Your task to perform on an android device: Open Chrome and go to settings Image 0: 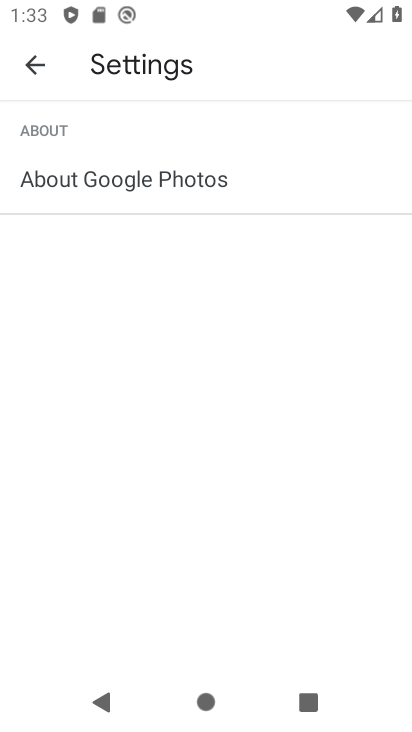
Step 0: press back button
Your task to perform on an android device: Open Chrome and go to settings Image 1: 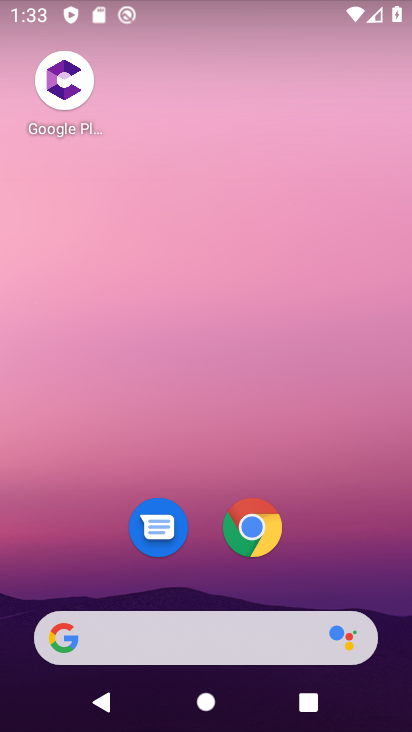
Step 1: click (263, 535)
Your task to perform on an android device: Open Chrome and go to settings Image 2: 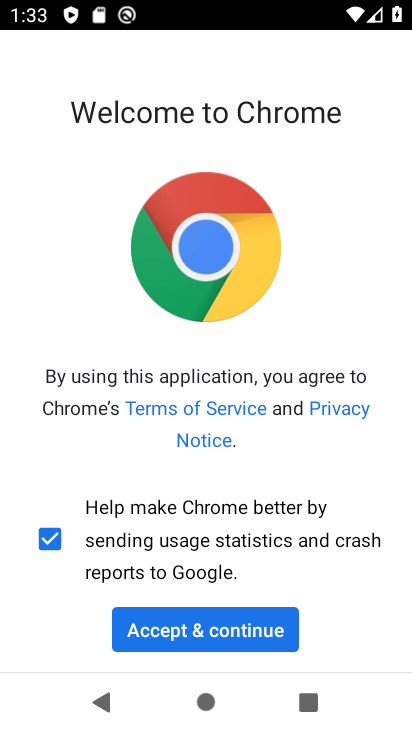
Step 2: click (285, 628)
Your task to perform on an android device: Open Chrome and go to settings Image 3: 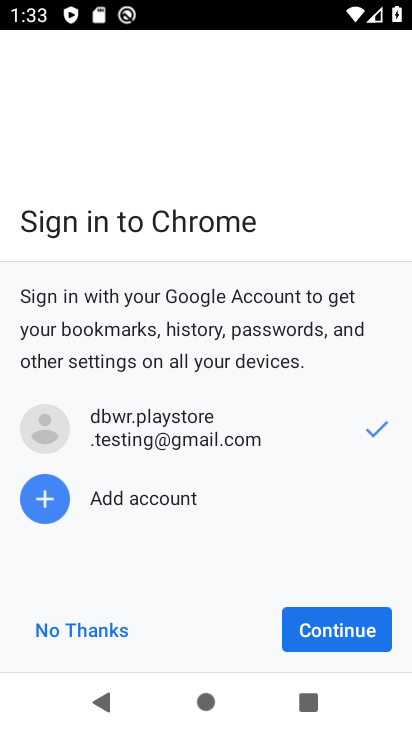
Step 3: click (337, 635)
Your task to perform on an android device: Open Chrome and go to settings Image 4: 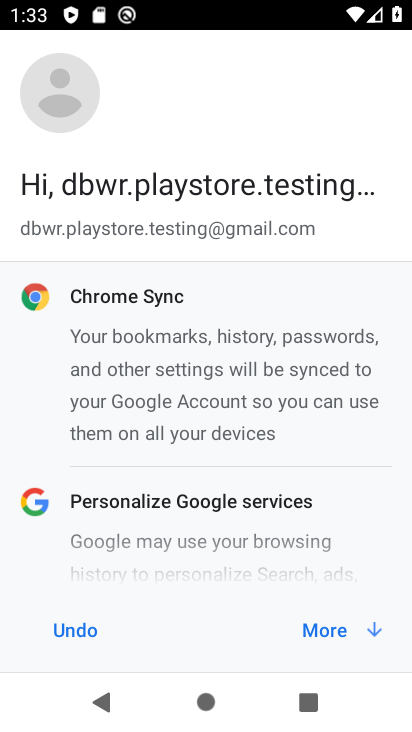
Step 4: click (337, 636)
Your task to perform on an android device: Open Chrome and go to settings Image 5: 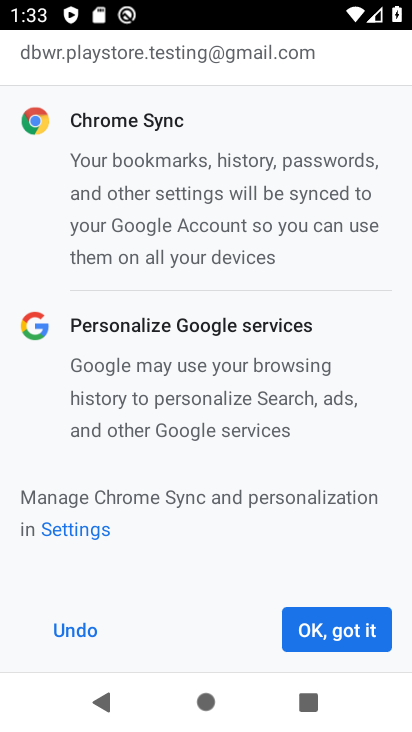
Step 5: click (337, 636)
Your task to perform on an android device: Open Chrome and go to settings Image 6: 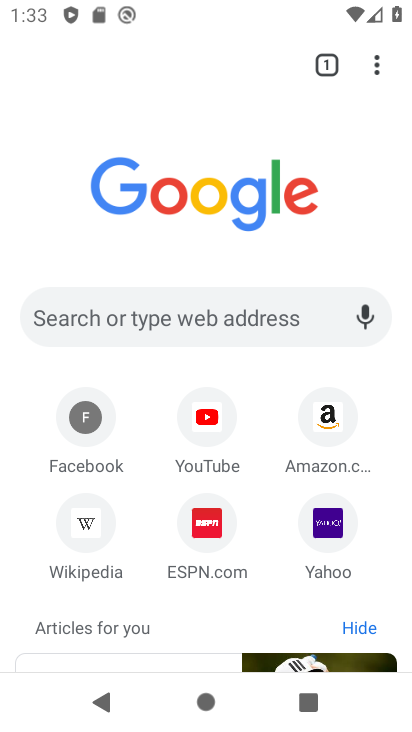
Step 6: task complete